Your task to perform on an android device: toggle sleep mode Image 0: 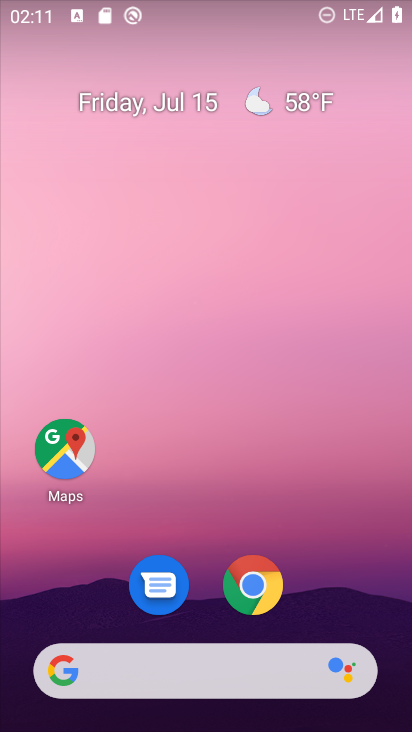
Step 0: drag from (223, 512) to (224, 51)
Your task to perform on an android device: toggle sleep mode Image 1: 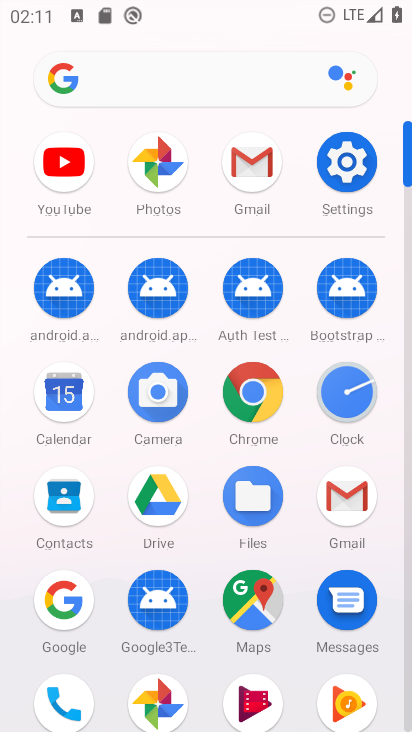
Step 1: click (336, 164)
Your task to perform on an android device: toggle sleep mode Image 2: 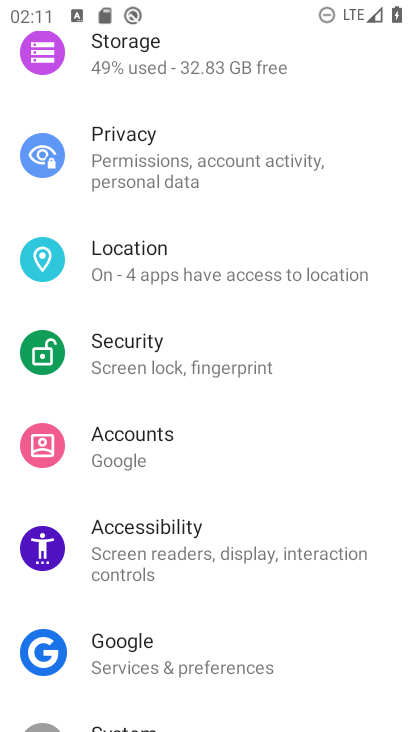
Step 2: drag from (244, 203) to (205, 683)
Your task to perform on an android device: toggle sleep mode Image 3: 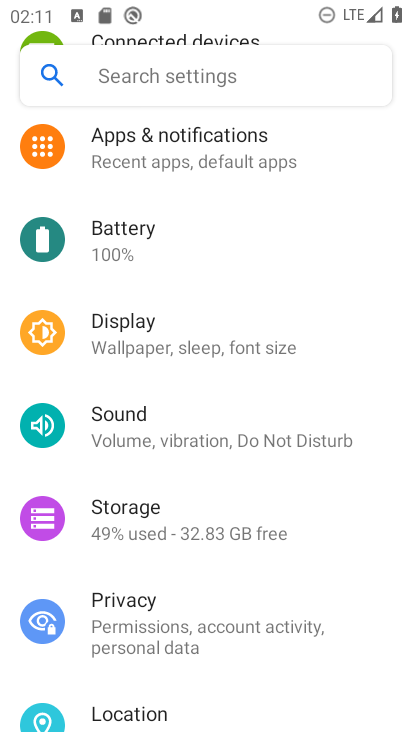
Step 3: click (259, 341)
Your task to perform on an android device: toggle sleep mode Image 4: 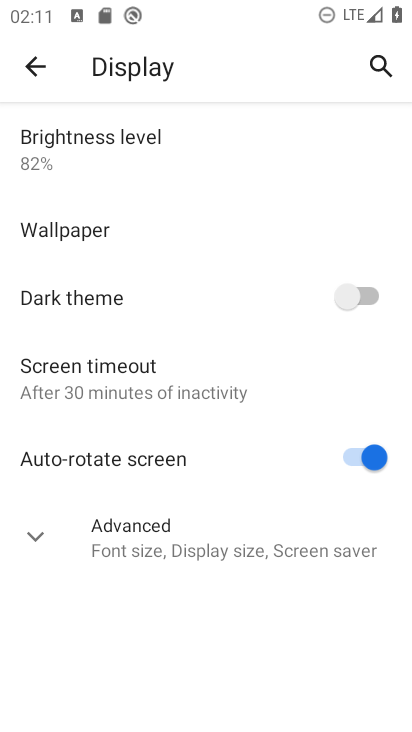
Step 4: click (35, 537)
Your task to perform on an android device: toggle sleep mode Image 5: 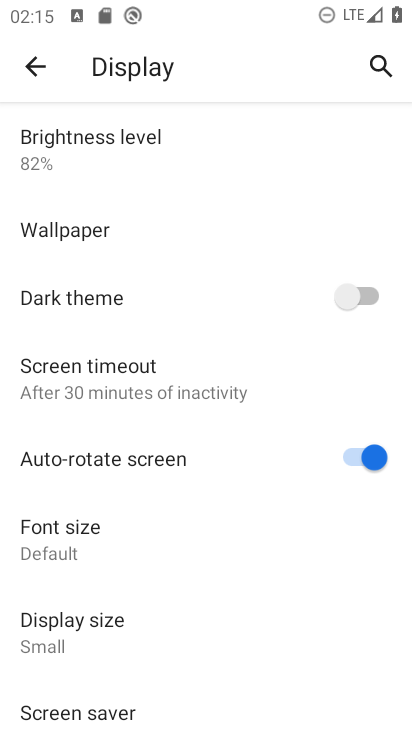
Step 5: task complete